Your task to perform on an android device: add a contact in the contacts app Image 0: 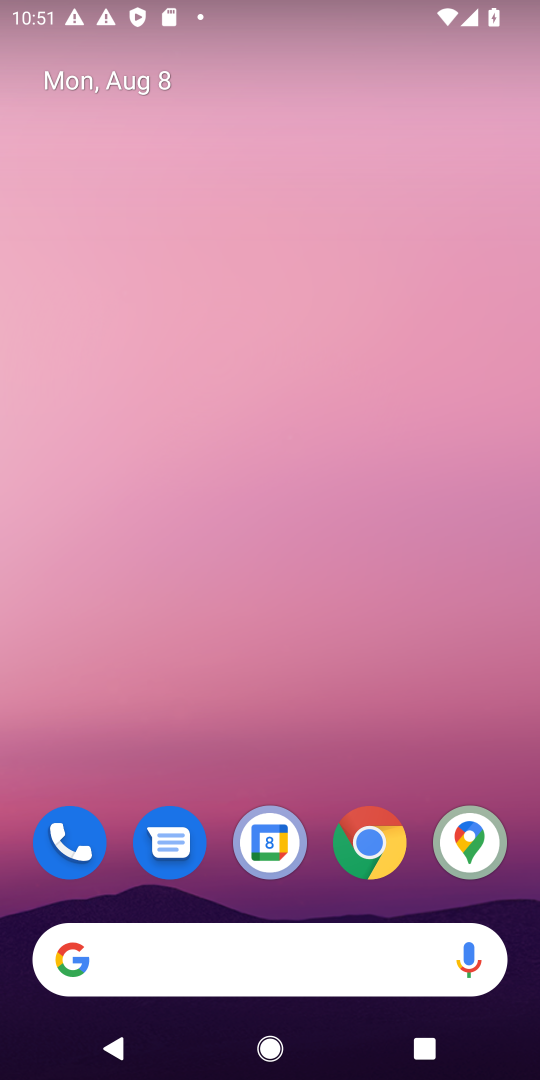
Step 0: click (70, 842)
Your task to perform on an android device: add a contact in the contacts app Image 1: 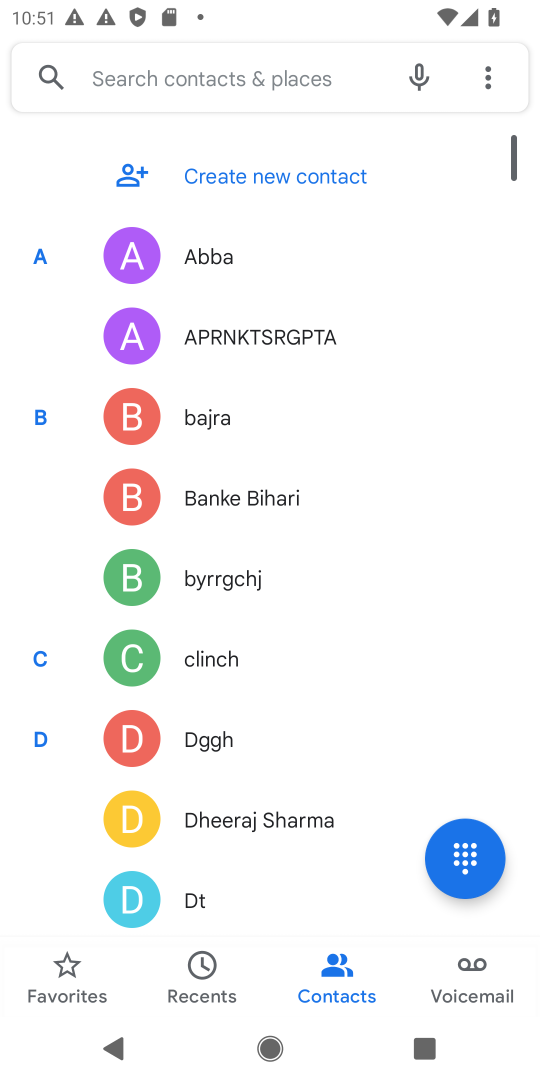
Step 1: click (324, 170)
Your task to perform on an android device: add a contact in the contacts app Image 2: 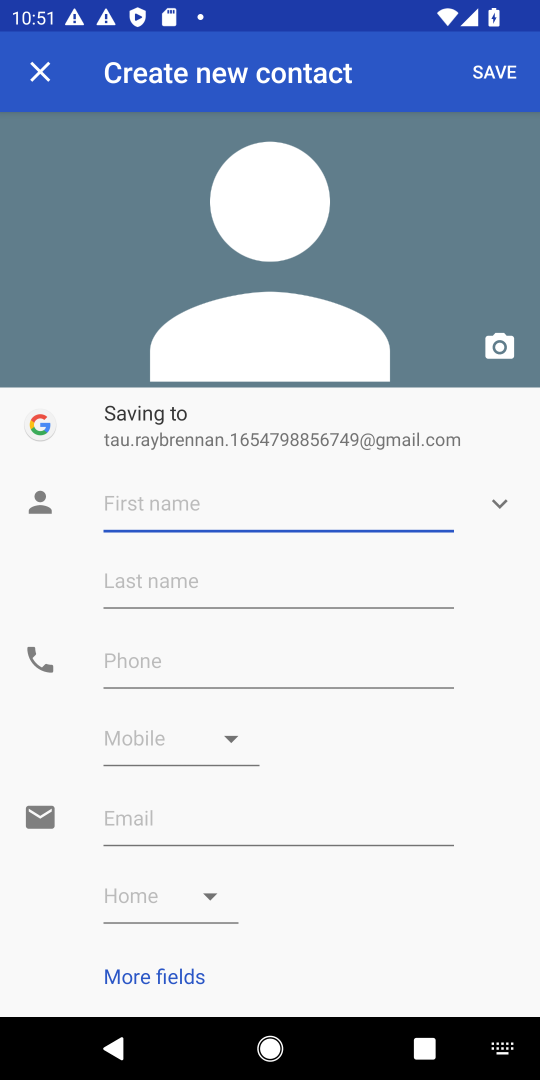
Step 2: type "vbdvdb"
Your task to perform on an android device: add a contact in the contacts app Image 3: 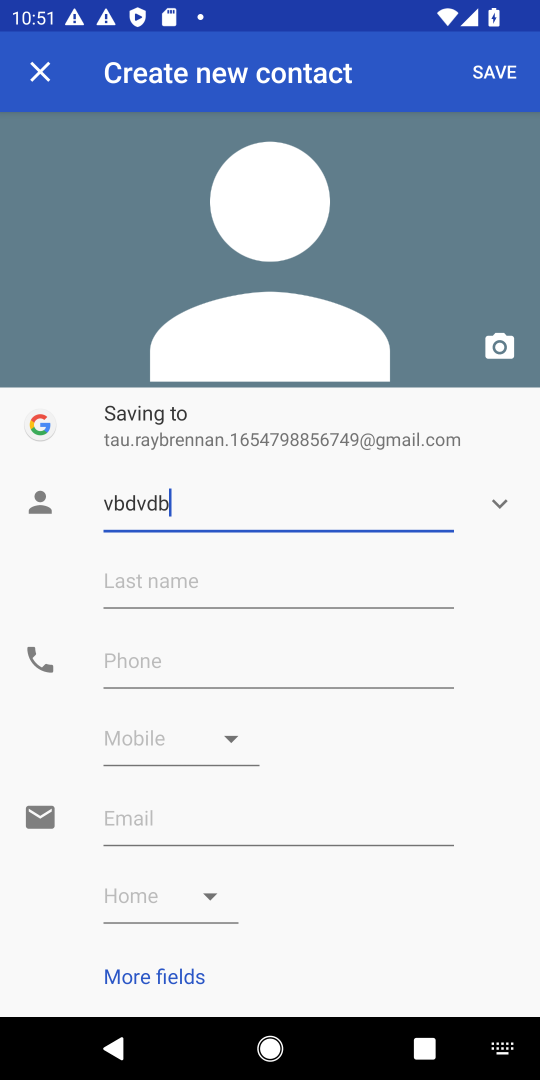
Step 3: click (244, 675)
Your task to perform on an android device: add a contact in the contacts app Image 4: 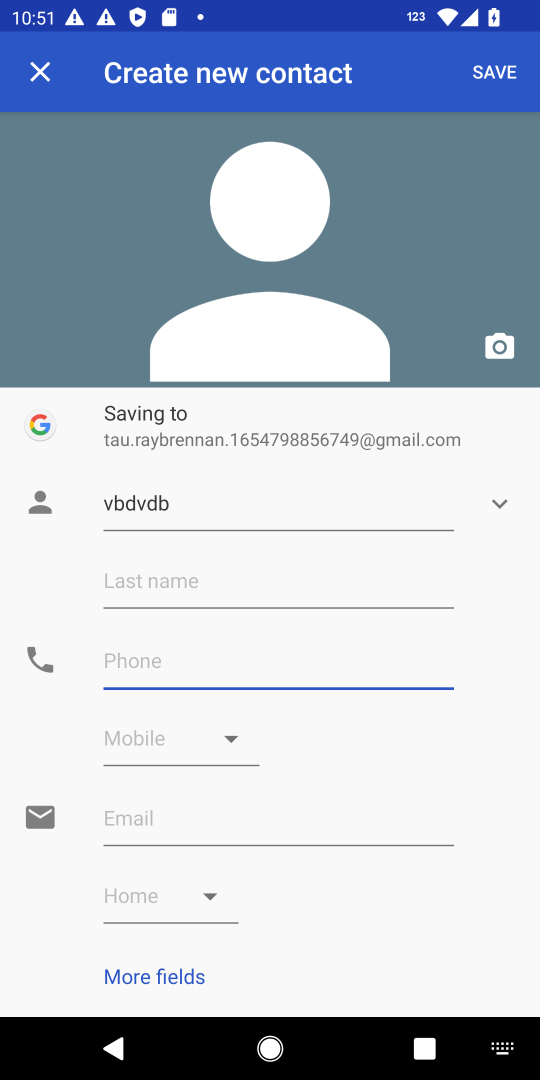
Step 4: type "5576857"
Your task to perform on an android device: add a contact in the contacts app Image 5: 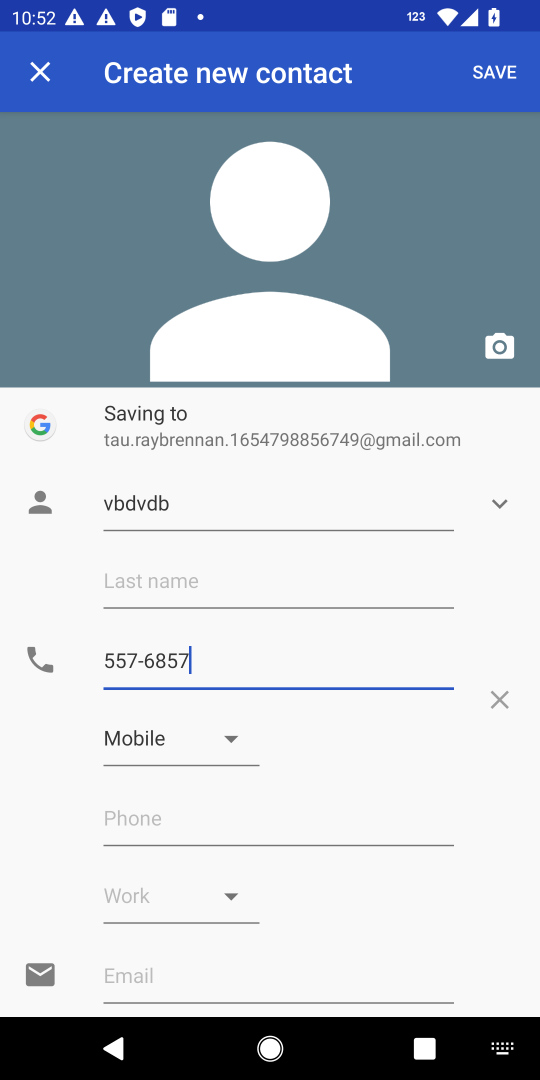
Step 5: click (512, 72)
Your task to perform on an android device: add a contact in the contacts app Image 6: 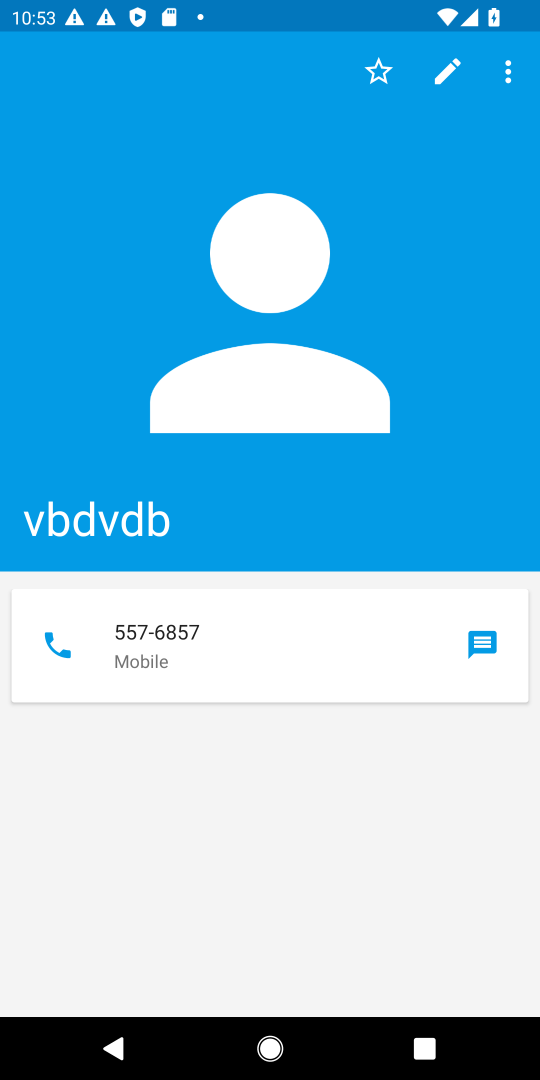
Step 6: task complete